Your task to perform on an android device: Find coffee shops on Maps Image 0: 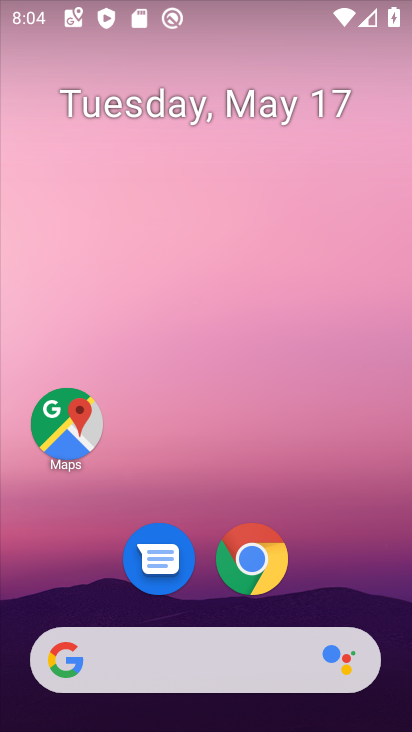
Step 0: click (72, 416)
Your task to perform on an android device: Find coffee shops on Maps Image 1: 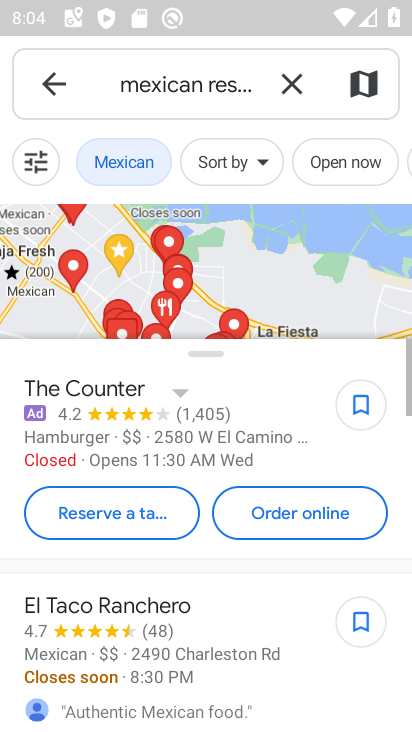
Step 1: click (300, 77)
Your task to perform on an android device: Find coffee shops on Maps Image 2: 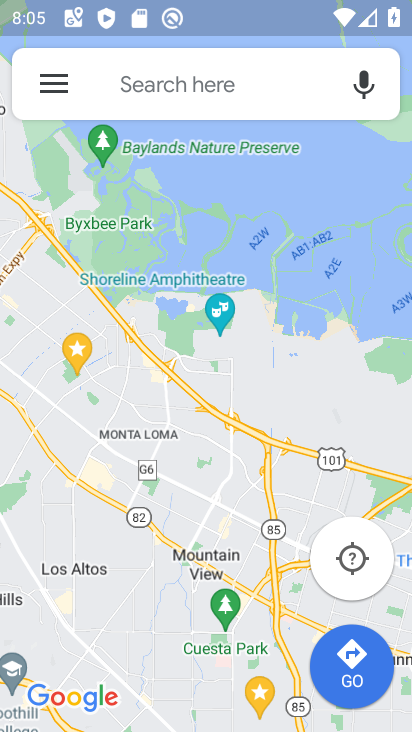
Step 2: click (185, 86)
Your task to perform on an android device: Find coffee shops on Maps Image 3: 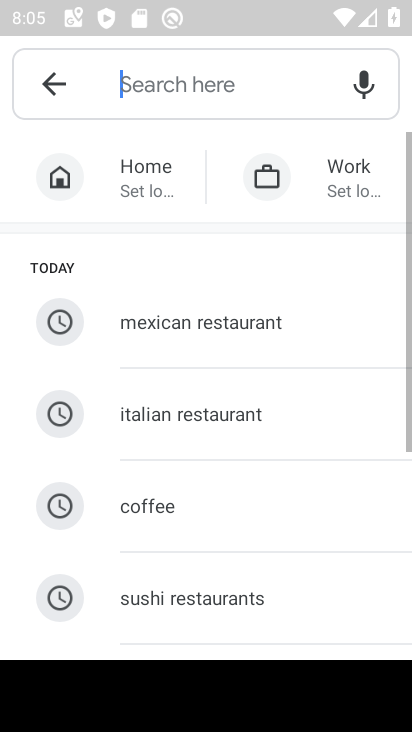
Step 3: click (159, 493)
Your task to perform on an android device: Find coffee shops on Maps Image 4: 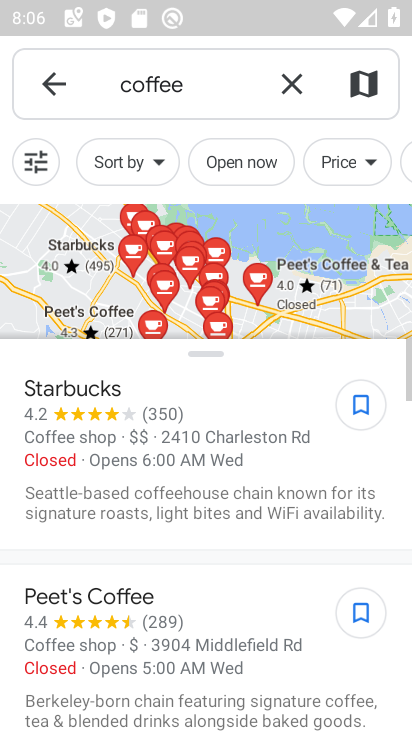
Step 4: task complete